Your task to perform on an android device: What's on my calendar today? Image 0: 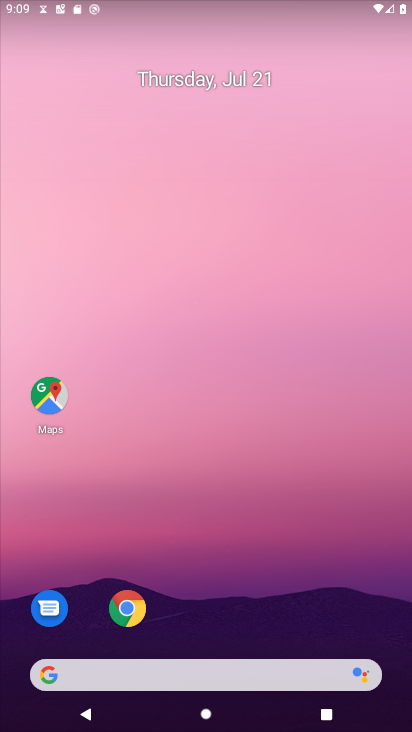
Step 0: drag from (191, 385) to (186, 48)
Your task to perform on an android device: What's on my calendar today? Image 1: 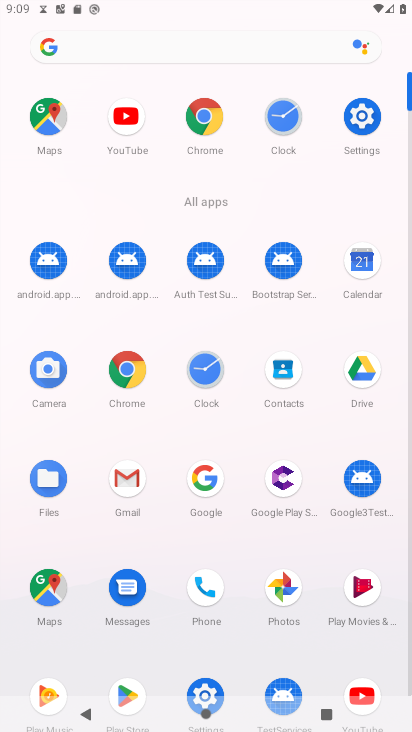
Step 1: click (365, 272)
Your task to perform on an android device: What's on my calendar today? Image 2: 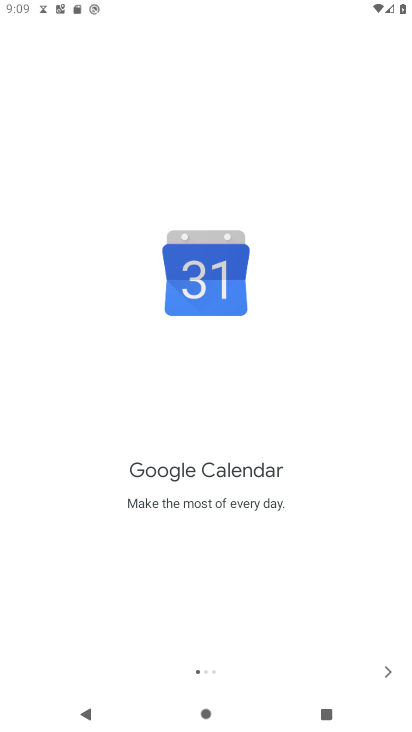
Step 2: click (386, 664)
Your task to perform on an android device: What's on my calendar today? Image 3: 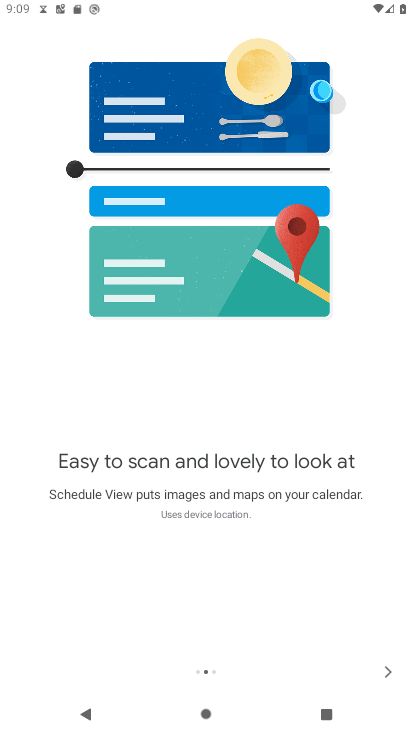
Step 3: click (386, 671)
Your task to perform on an android device: What's on my calendar today? Image 4: 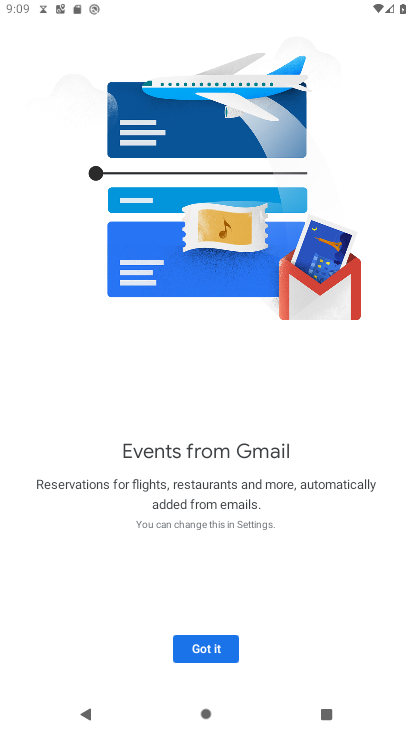
Step 4: click (213, 643)
Your task to perform on an android device: What's on my calendar today? Image 5: 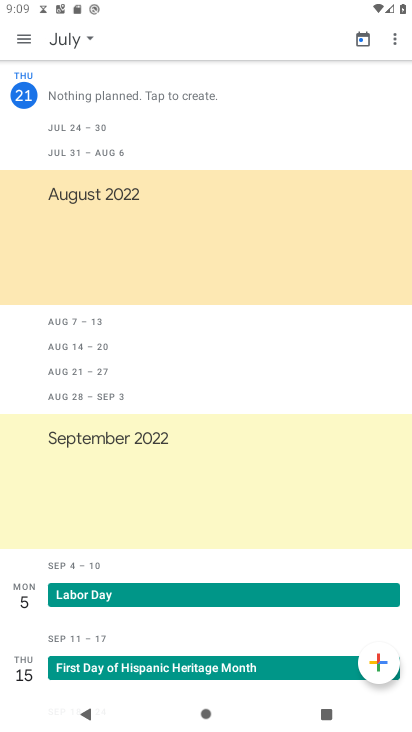
Step 5: task complete